Your task to perform on an android device: turn on location history Image 0: 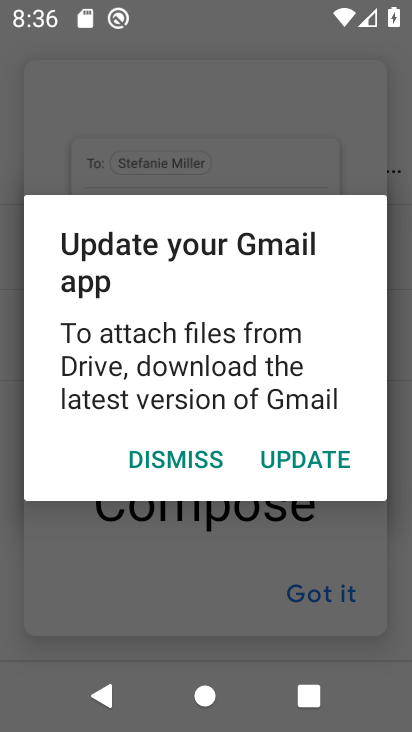
Step 0: press home button
Your task to perform on an android device: turn on location history Image 1: 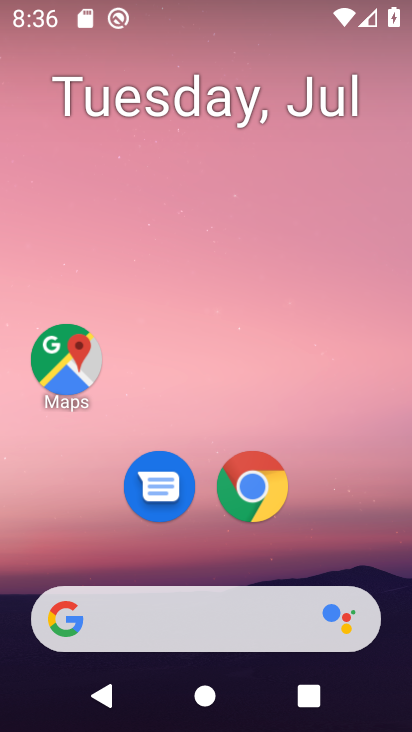
Step 1: drag from (288, 578) to (344, 70)
Your task to perform on an android device: turn on location history Image 2: 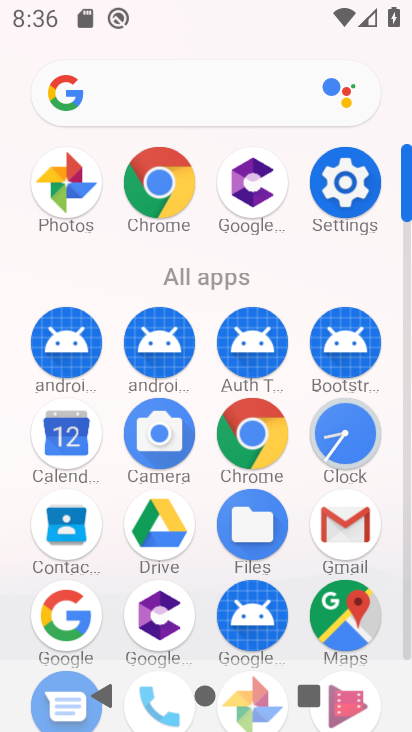
Step 2: click (353, 187)
Your task to perform on an android device: turn on location history Image 3: 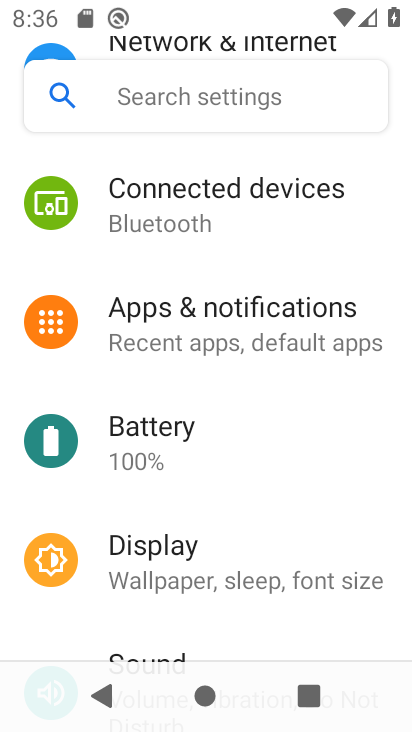
Step 3: drag from (258, 291) to (181, 696)
Your task to perform on an android device: turn on location history Image 4: 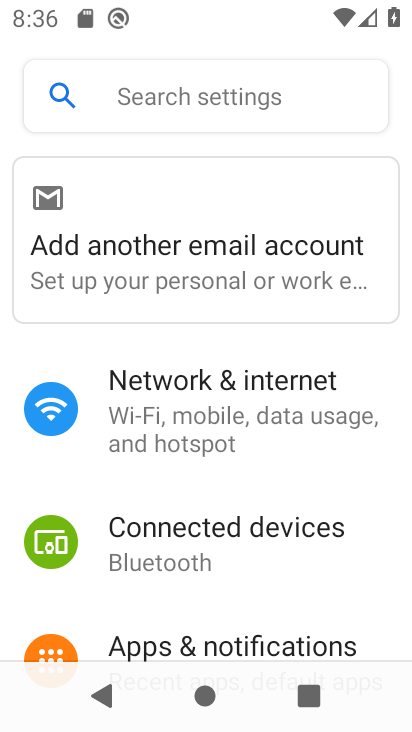
Step 4: drag from (193, 481) to (232, 80)
Your task to perform on an android device: turn on location history Image 5: 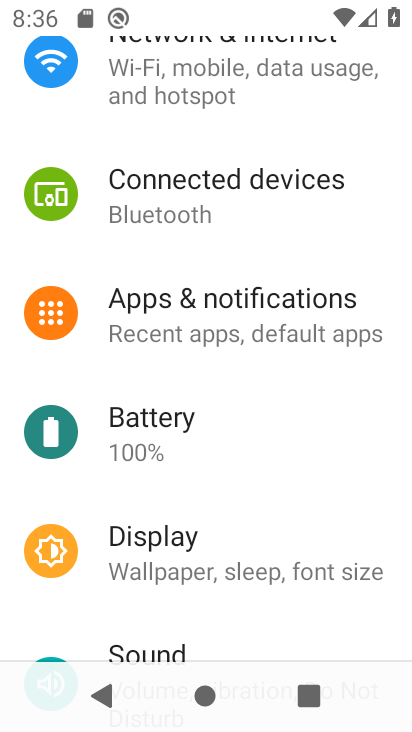
Step 5: drag from (200, 565) to (240, 203)
Your task to perform on an android device: turn on location history Image 6: 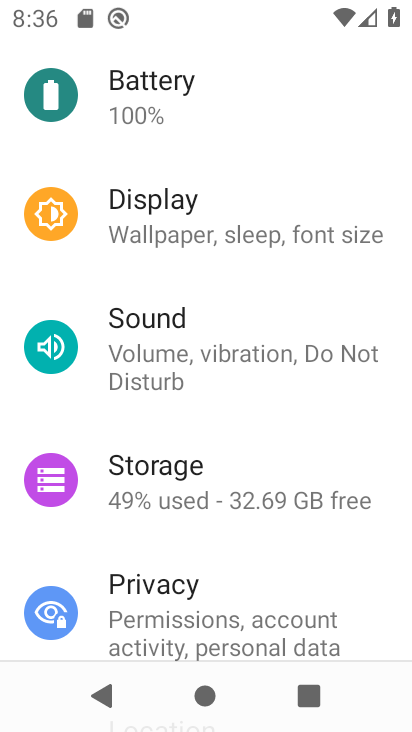
Step 6: drag from (210, 491) to (223, 248)
Your task to perform on an android device: turn on location history Image 7: 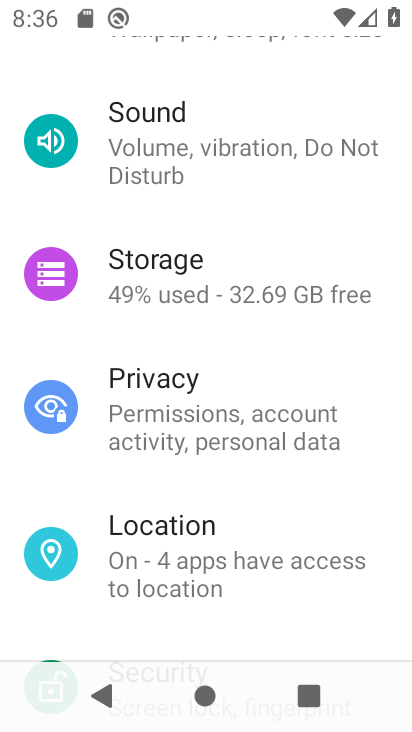
Step 7: click (178, 555)
Your task to perform on an android device: turn on location history Image 8: 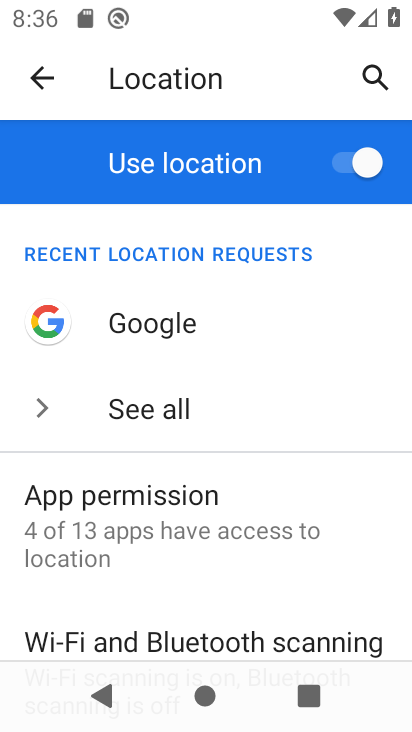
Step 8: drag from (209, 457) to (304, 97)
Your task to perform on an android device: turn on location history Image 9: 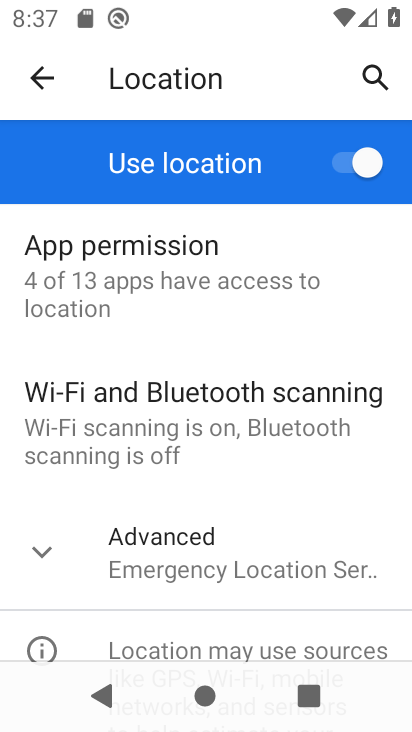
Step 9: drag from (193, 580) to (289, 169)
Your task to perform on an android device: turn on location history Image 10: 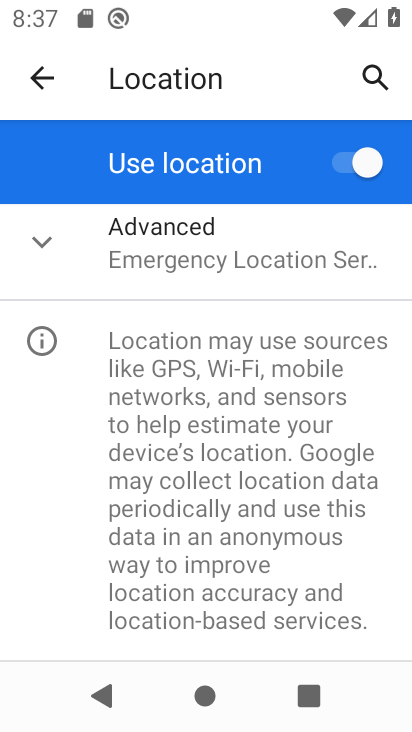
Step 10: click (262, 271)
Your task to perform on an android device: turn on location history Image 11: 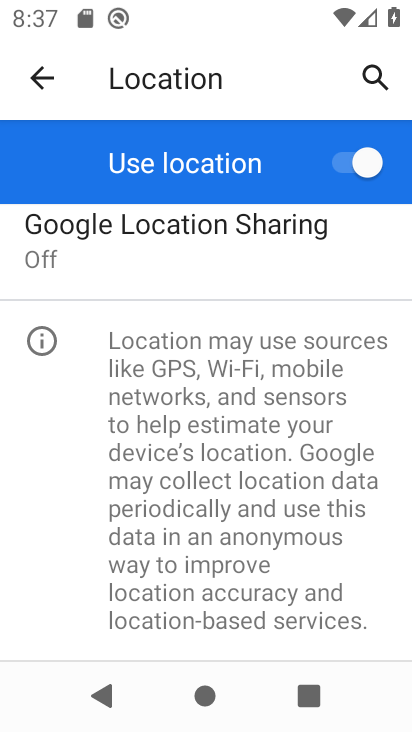
Step 11: drag from (230, 372) to (167, 588)
Your task to perform on an android device: turn on location history Image 12: 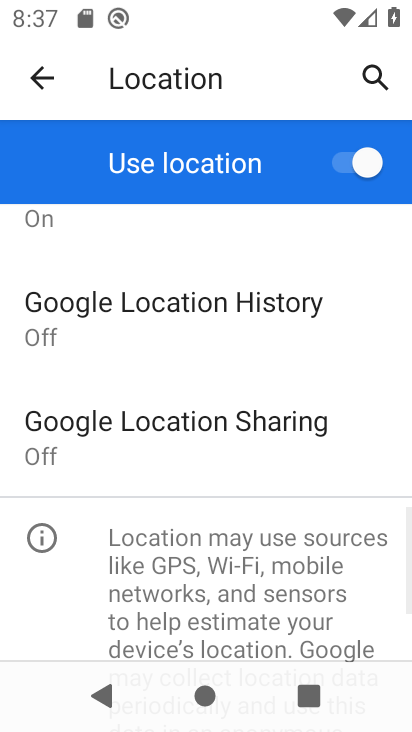
Step 12: drag from (186, 431) to (172, 532)
Your task to perform on an android device: turn on location history Image 13: 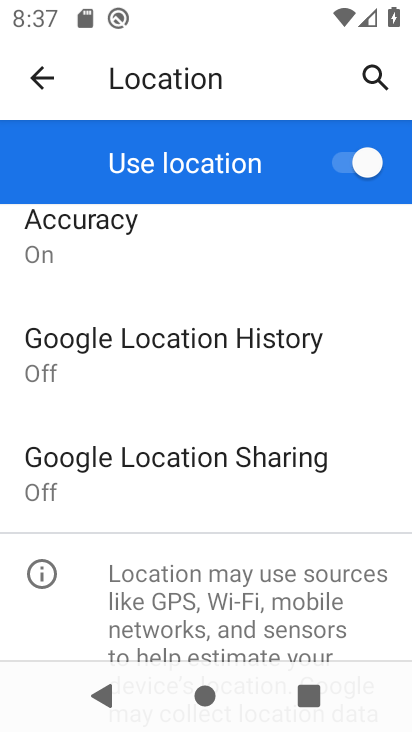
Step 13: click (229, 366)
Your task to perform on an android device: turn on location history Image 14: 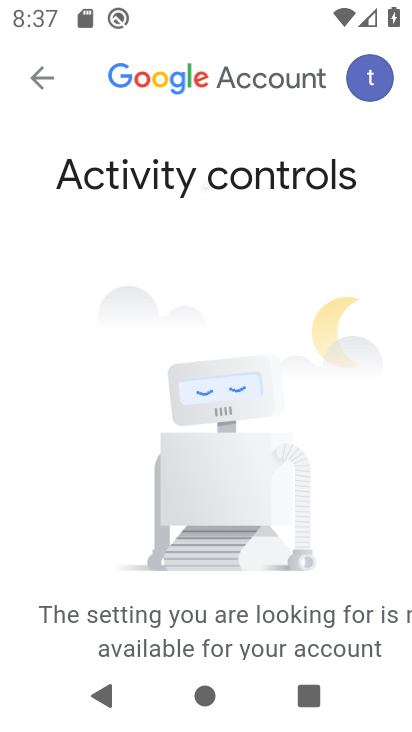
Step 14: task complete